Your task to perform on an android device: check storage Image 0: 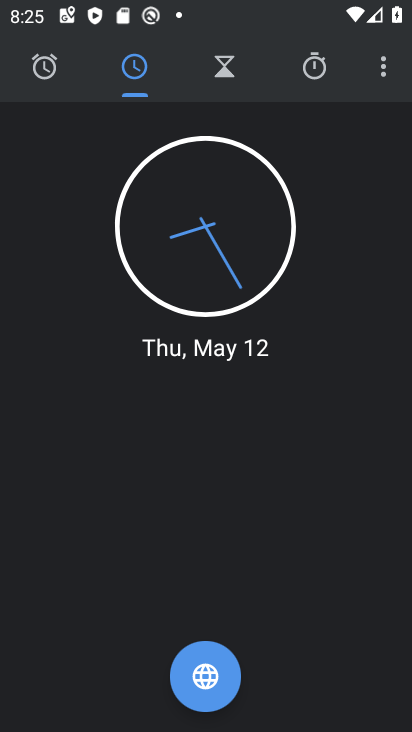
Step 0: press home button
Your task to perform on an android device: check storage Image 1: 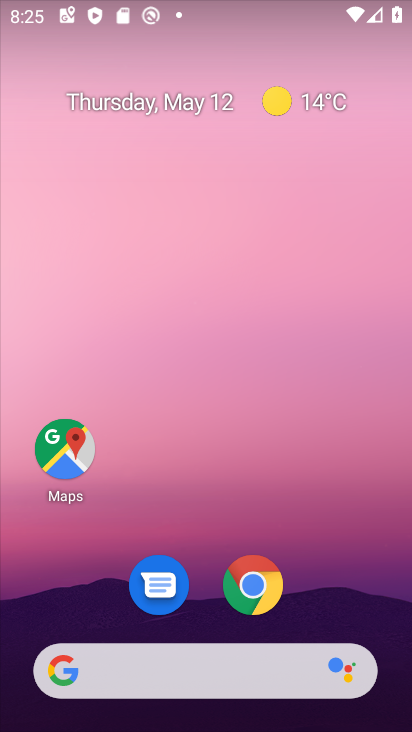
Step 1: drag from (231, 517) to (164, 51)
Your task to perform on an android device: check storage Image 2: 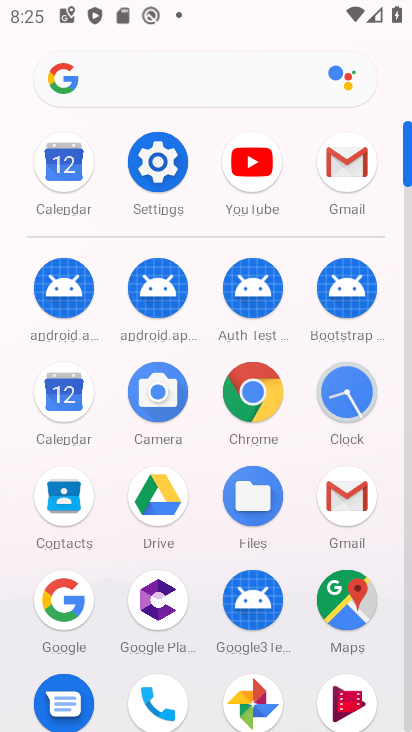
Step 2: click (159, 149)
Your task to perform on an android device: check storage Image 3: 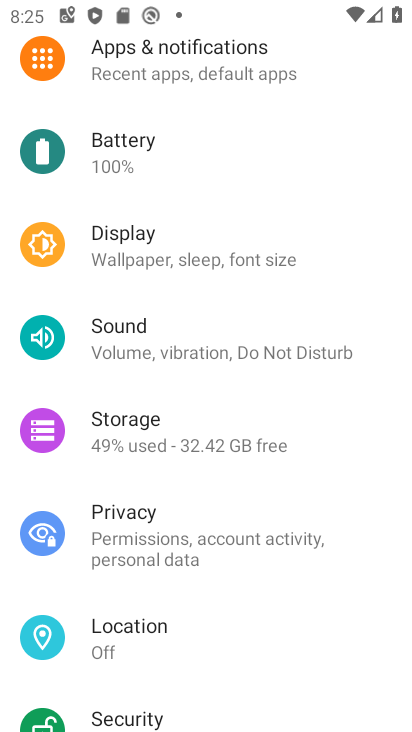
Step 3: click (190, 422)
Your task to perform on an android device: check storage Image 4: 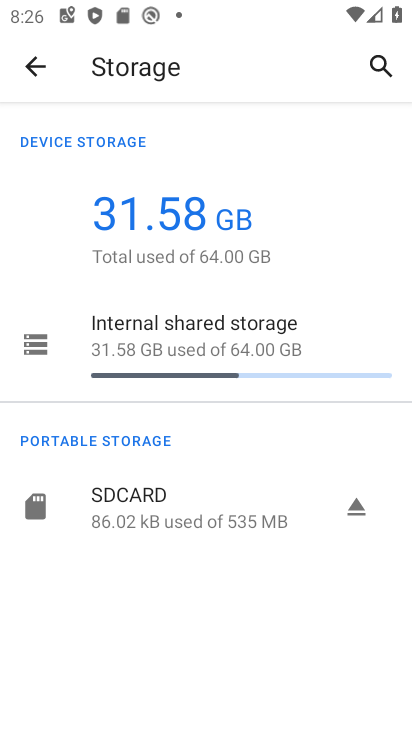
Step 4: task complete